Your task to perform on an android device: turn off notifications in google photos Image 0: 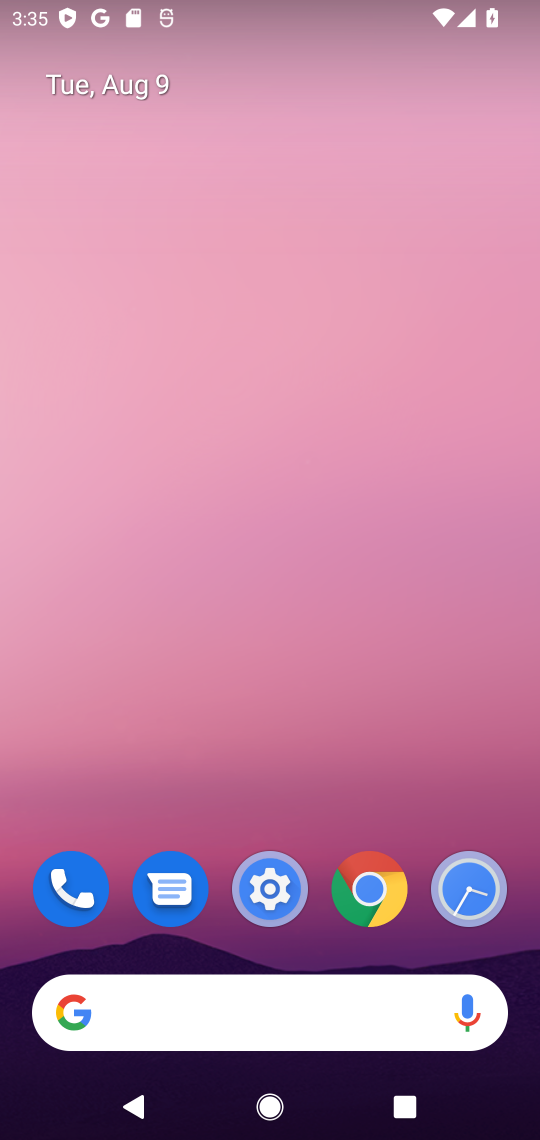
Step 0: drag from (275, 769) to (372, 17)
Your task to perform on an android device: turn off notifications in google photos Image 1: 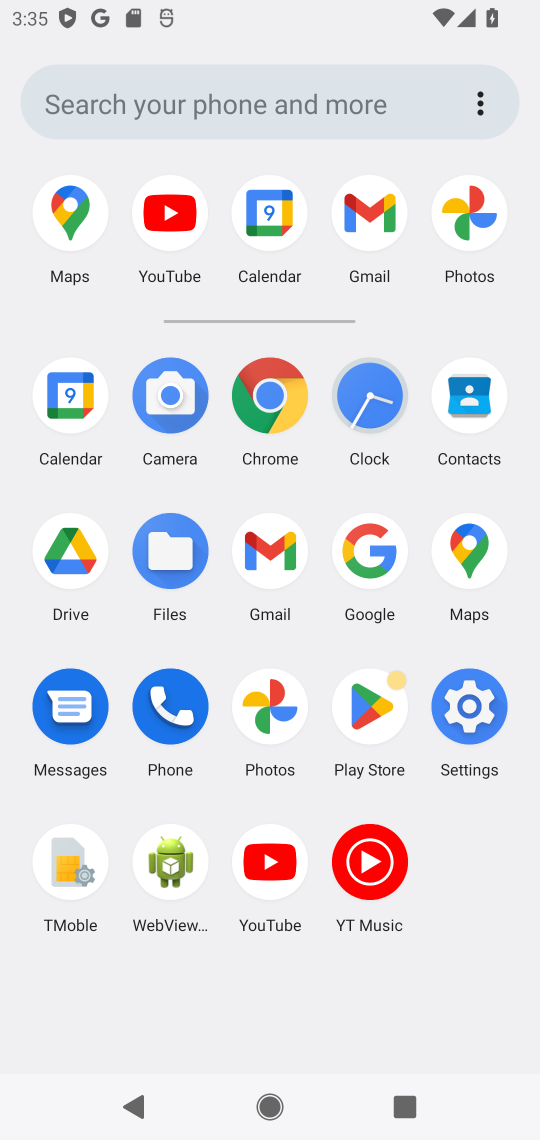
Step 1: click (468, 209)
Your task to perform on an android device: turn off notifications in google photos Image 2: 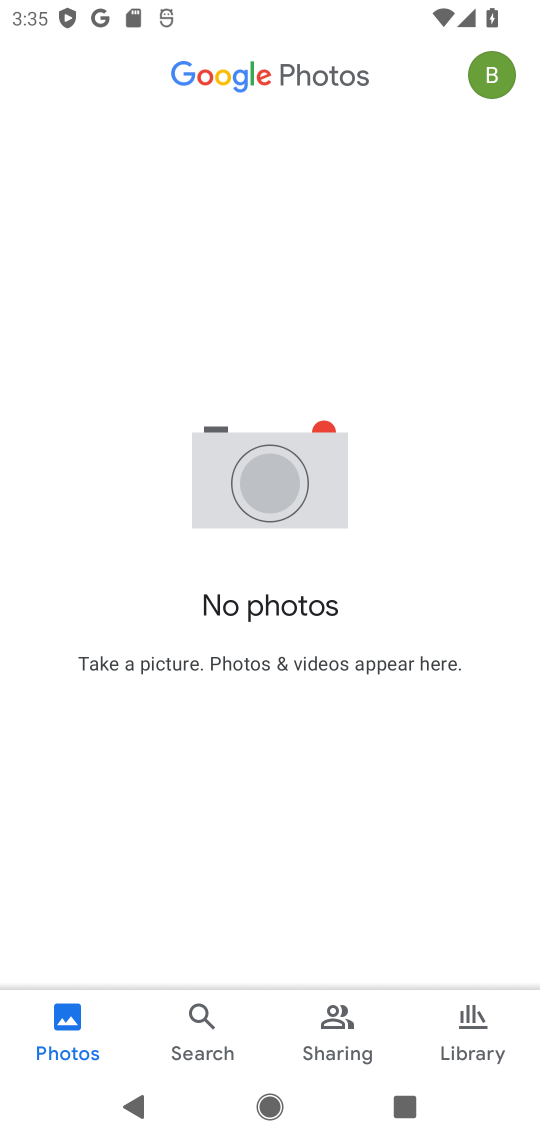
Step 2: click (499, 79)
Your task to perform on an android device: turn off notifications in google photos Image 3: 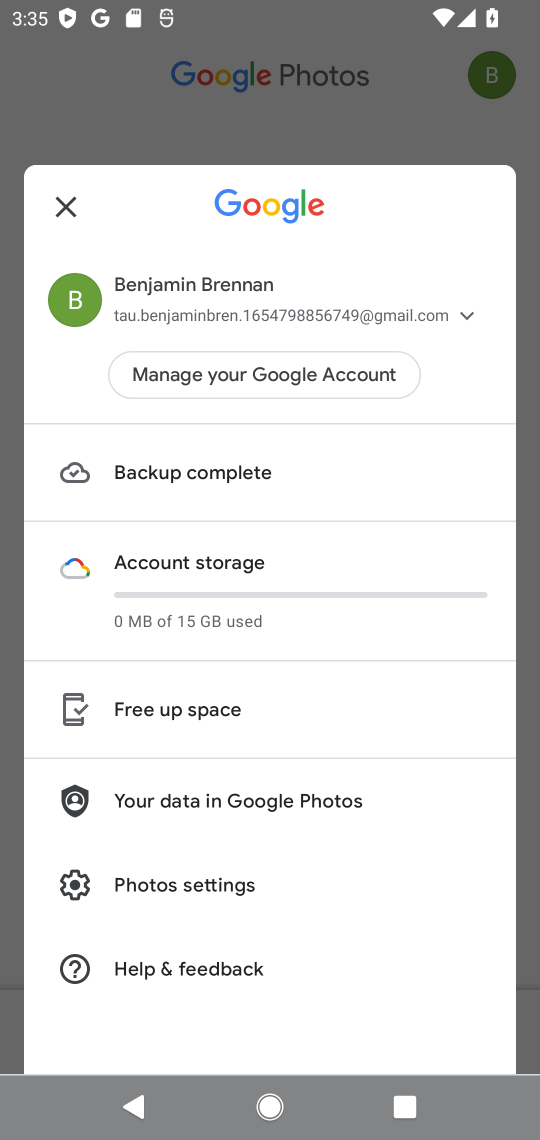
Step 3: click (227, 874)
Your task to perform on an android device: turn off notifications in google photos Image 4: 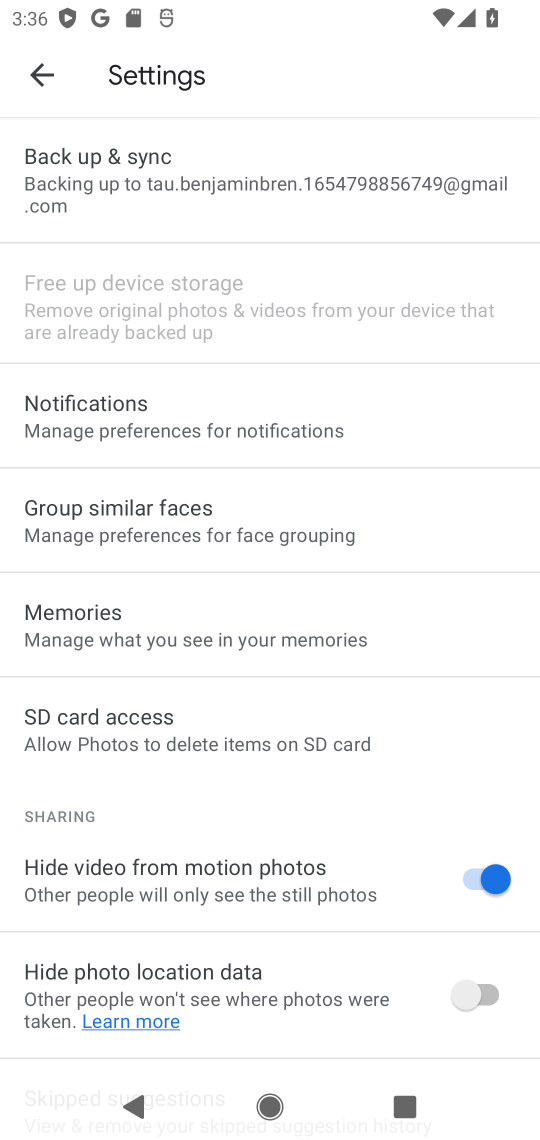
Step 4: click (225, 421)
Your task to perform on an android device: turn off notifications in google photos Image 5: 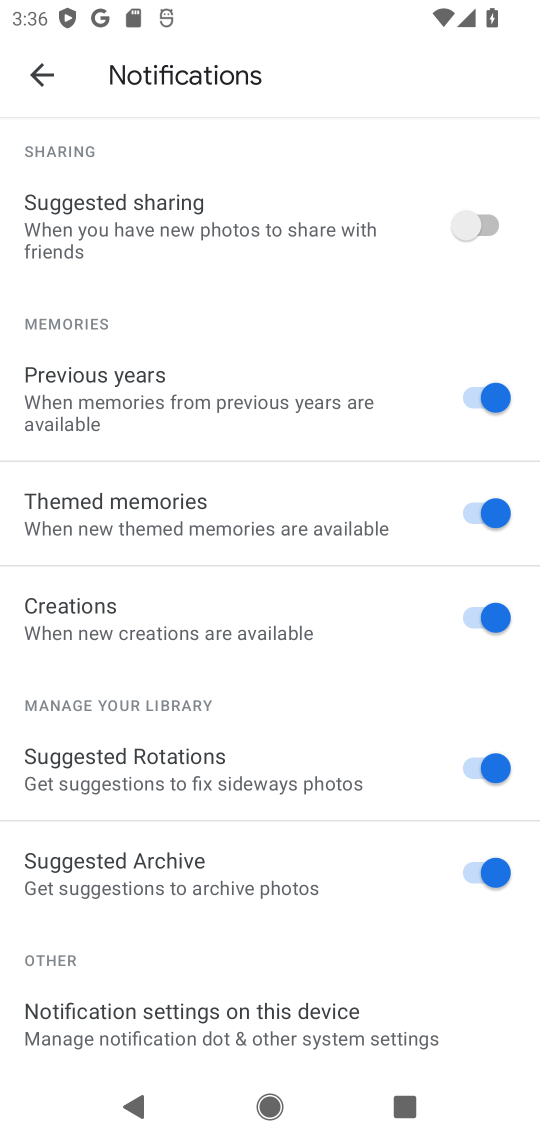
Step 5: drag from (258, 936) to (301, 559)
Your task to perform on an android device: turn off notifications in google photos Image 6: 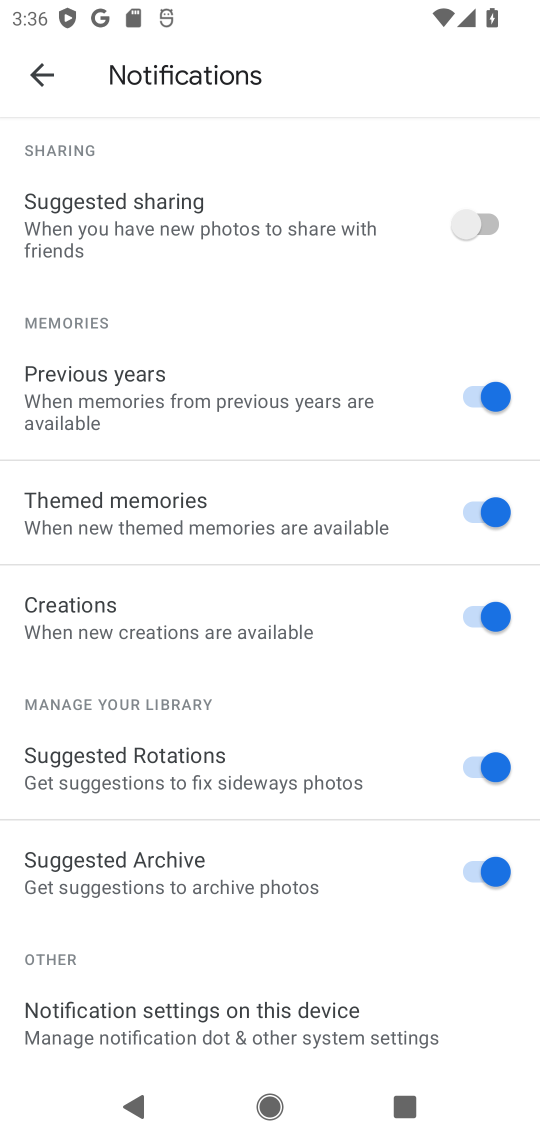
Step 6: click (276, 1011)
Your task to perform on an android device: turn off notifications in google photos Image 7: 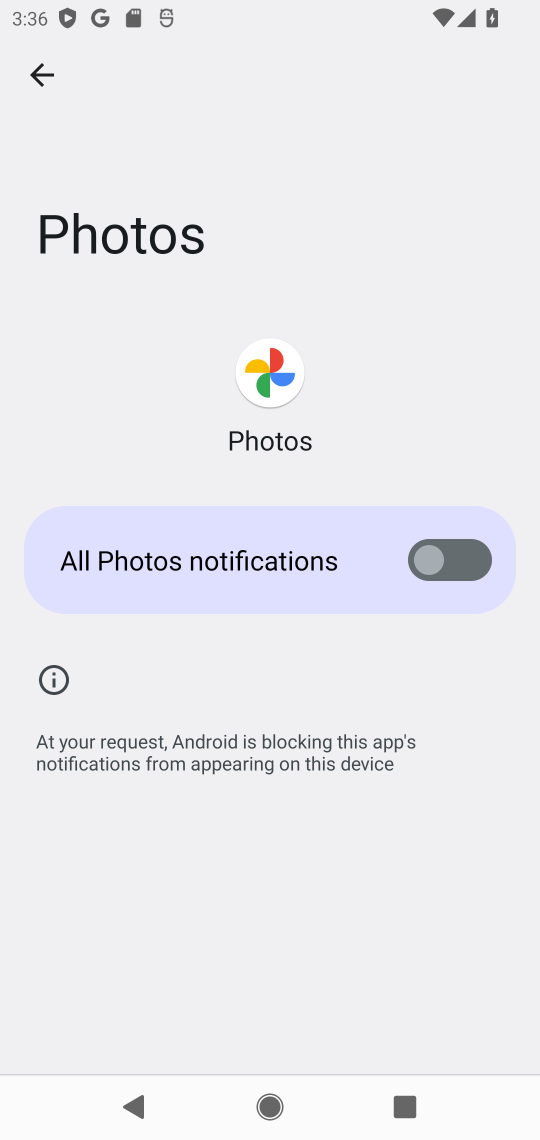
Step 7: task complete